Your task to perform on an android device: change notification settings in the gmail app Image 0: 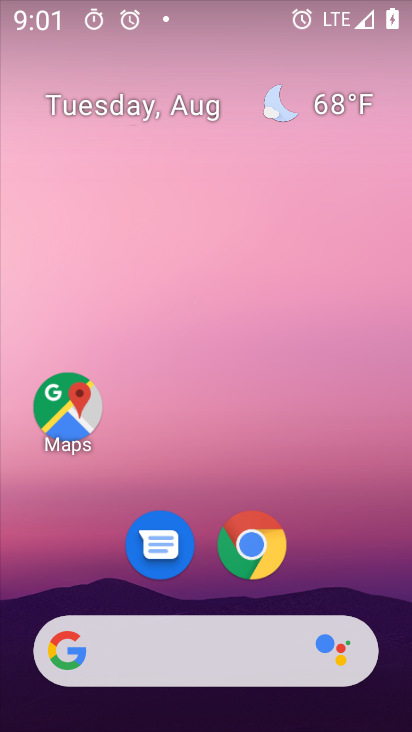
Step 0: drag from (213, 648) to (208, 0)
Your task to perform on an android device: change notification settings in the gmail app Image 1: 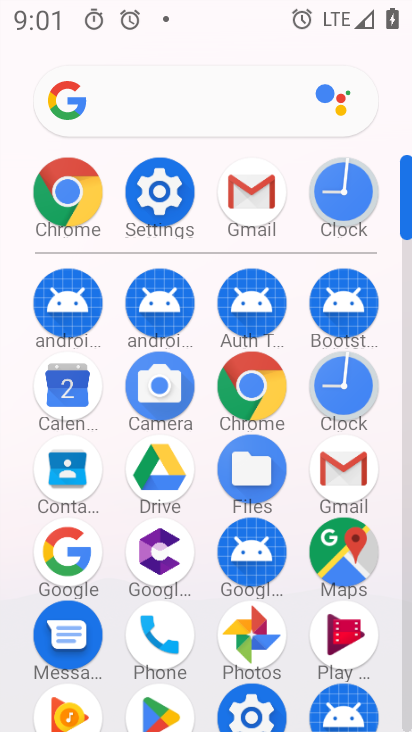
Step 1: click (152, 207)
Your task to perform on an android device: change notification settings in the gmail app Image 2: 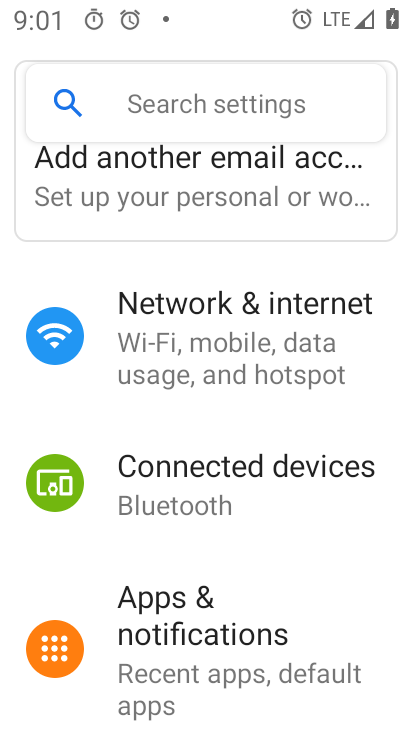
Step 2: press back button
Your task to perform on an android device: change notification settings in the gmail app Image 3: 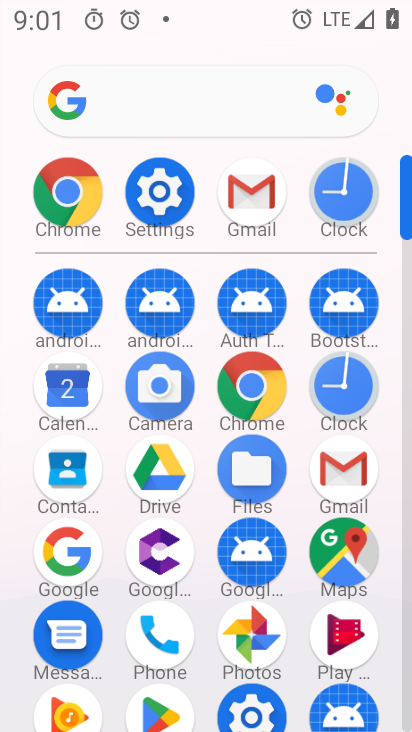
Step 3: click (256, 205)
Your task to perform on an android device: change notification settings in the gmail app Image 4: 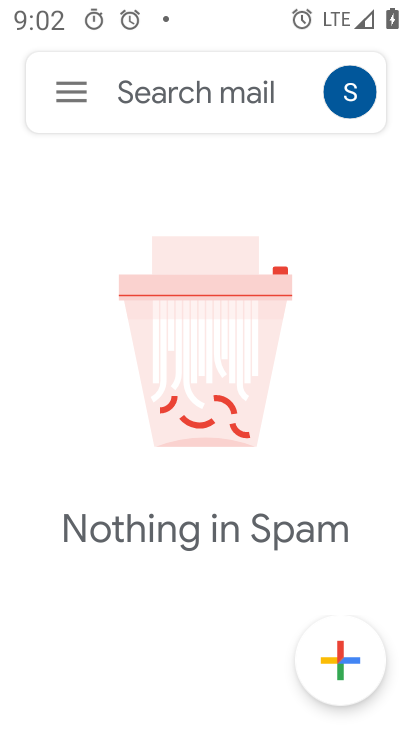
Step 4: click (67, 89)
Your task to perform on an android device: change notification settings in the gmail app Image 5: 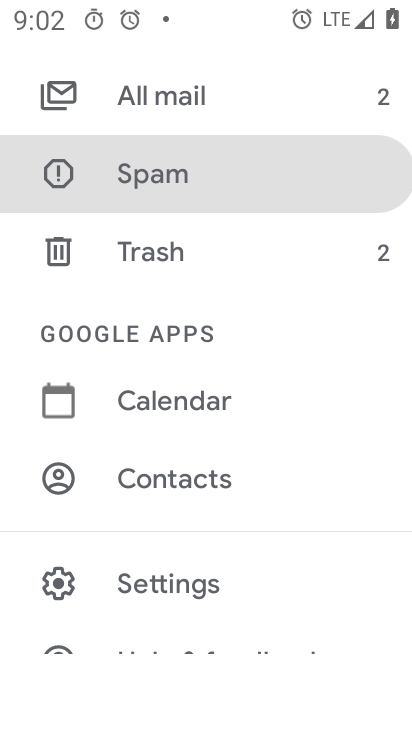
Step 5: drag from (192, 591) to (245, 42)
Your task to perform on an android device: change notification settings in the gmail app Image 6: 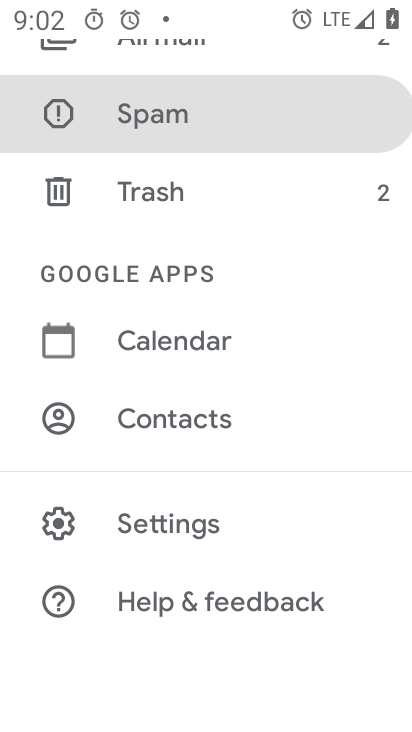
Step 6: click (177, 536)
Your task to perform on an android device: change notification settings in the gmail app Image 7: 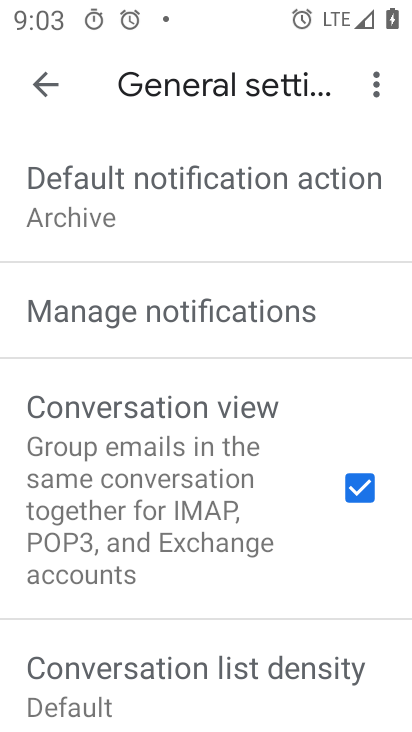
Step 7: click (292, 328)
Your task to perform on an android device: change notification settings in the gmail app Image 8: 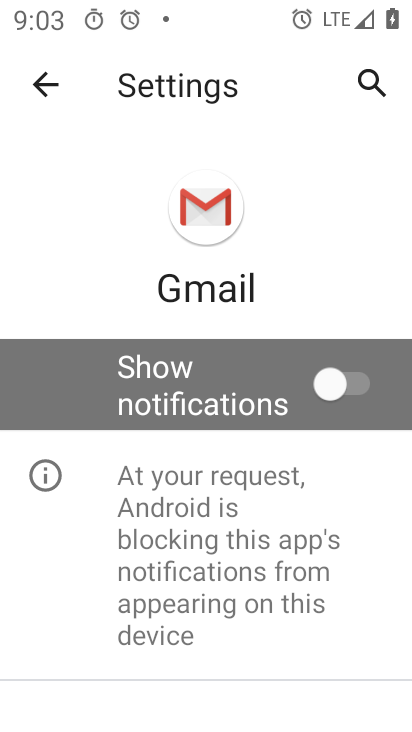
Step 8: click (350, 382)
Your task to perform on an android device: change notification settings in the gmail app Image 9: 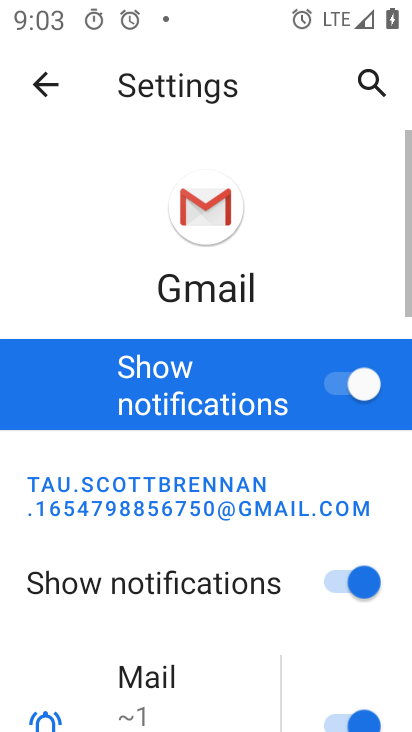
Step 9: task complete